Your task to perform on an android device: Play the last video I watched on Youtube Image 0: 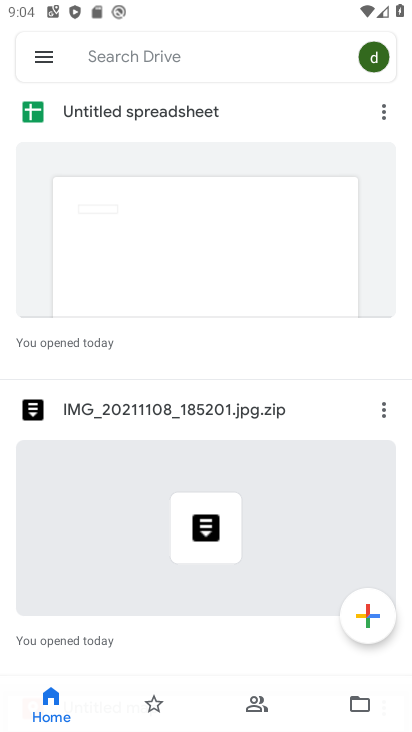
Step 0: press home button
Your task to perform on an android device: Play the last video I watched on Youtube Image 1: 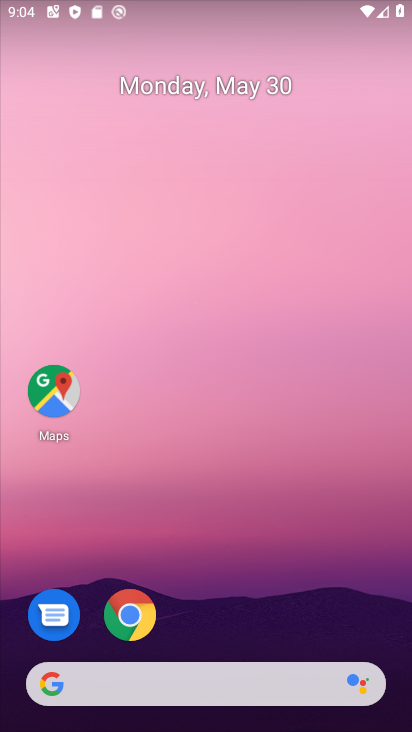
Step 1: drag from (287, 564) to (282, 42)
Your task to perform on an android device: Play the last video I watched on Youtube Image 2: 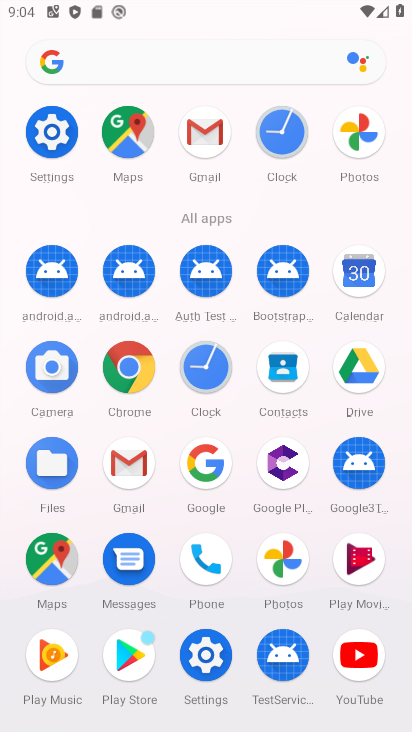
Step 2: click (348, 671)
Your task to perform on an android device: Play the last video I watched on Youtube Image 3: 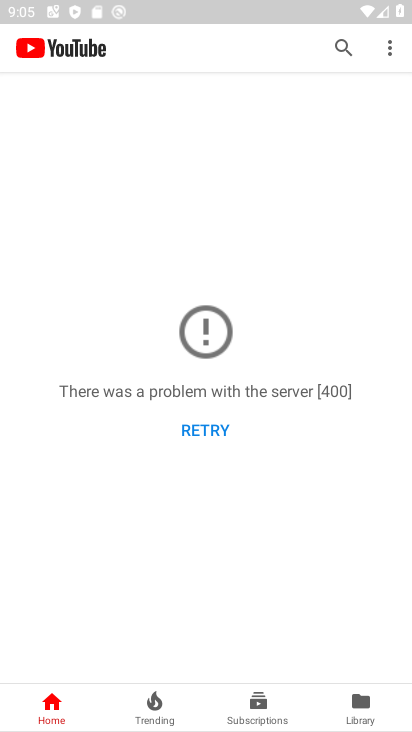
Step 3: click (364, 700)
Your task to perform on an android device: Play the last video I watched on Youtube Image 4: 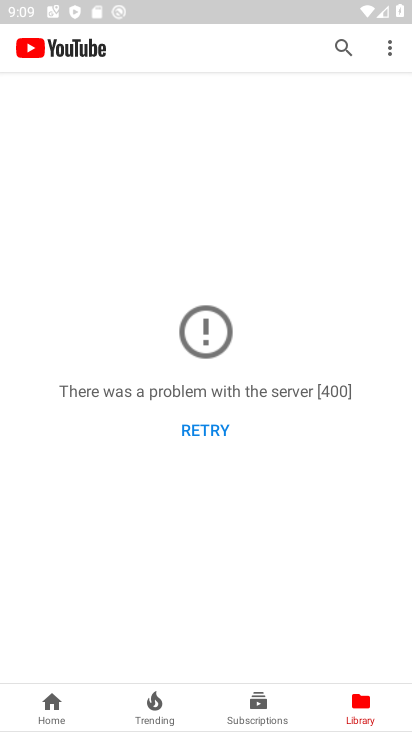
Step 4: task complete